Your task to perform on an android device: Search for Mexican restaurants on Maps Image 0: 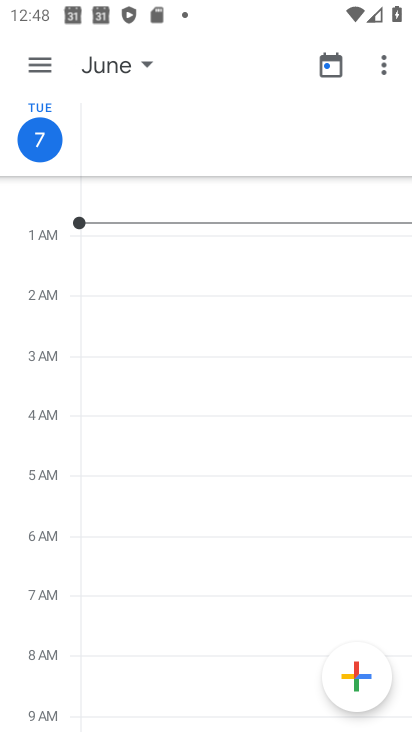
Step 0: press home button
Your task to perform on an android device: Search for Mexican restaurants on Maps Image 1: 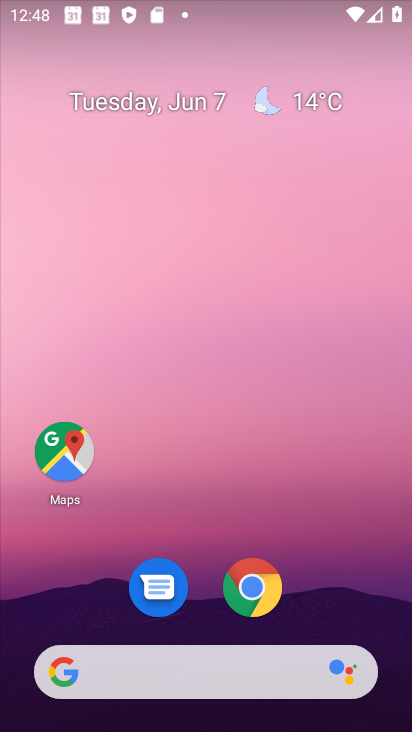
Step 1: drag from (209, 671) to (217, 255)
Your task to perform on an android device: Search for Mexican restaurants on Maps Image 2: 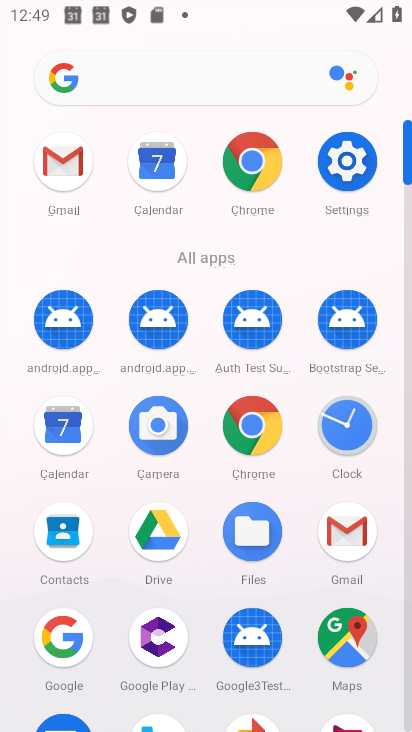
Step 2: click (353, 630)
Your task to perform on an android device: Search for Mexican restaurants on Maps Image 3: 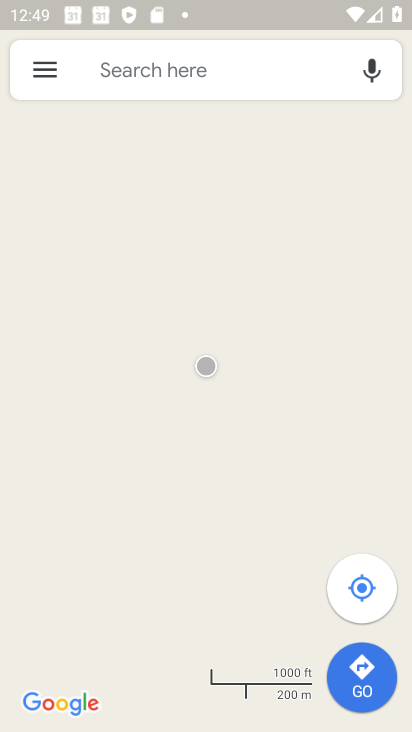
Step 3: click (238, 85)
Your task to perform on an android device: Search for Mexican restaurants on Maps Image 4: 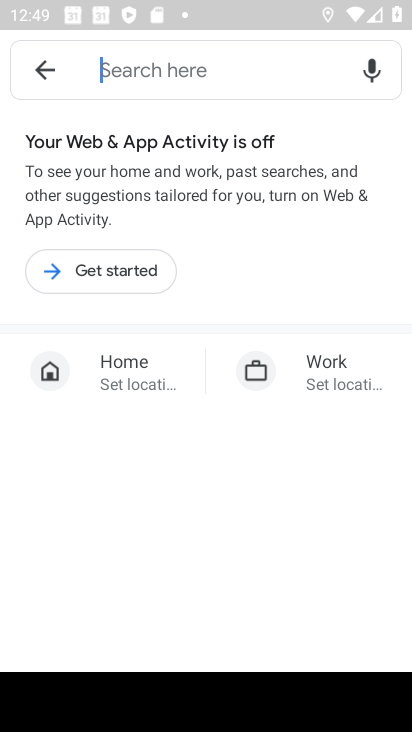
Step 4: click (240, 74)
Your task to perform on an android device: Search for Mexican restaurants on Maps Image 5: 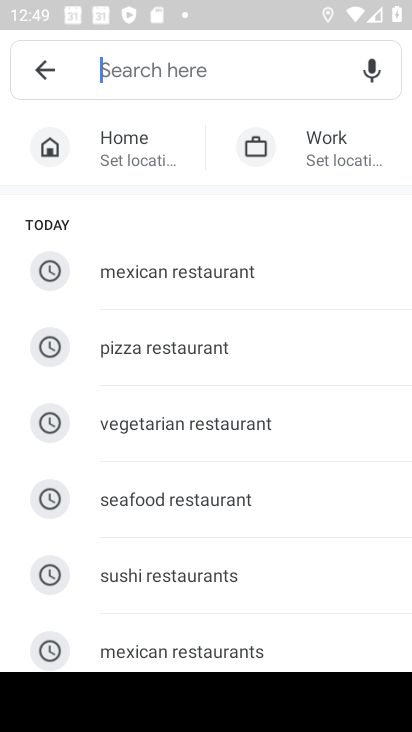
Step 5: type "mexican restaurants"
Your task to perform on an android device: Search for Mexican restaurants on Maps Image 6: 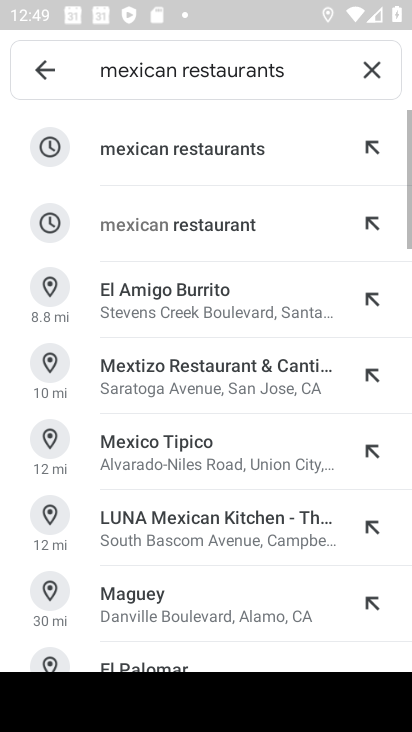
Step 6: task complete